Your task to perform on an android device: What's the weather today? Image 0: 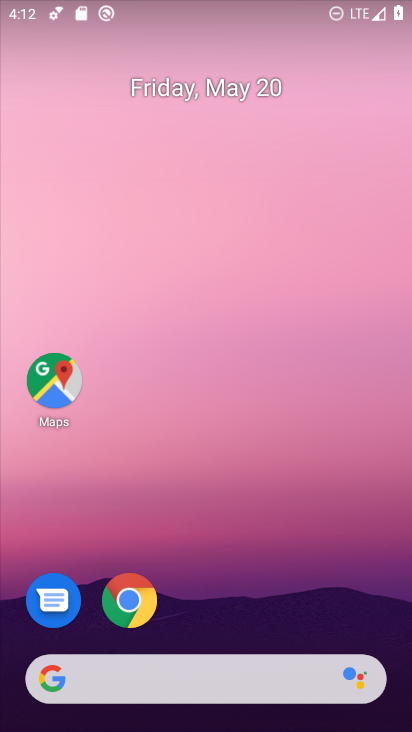
Step 0: click (209, 671)
Your task to perform on an android device: What's the weather today? Image 1: 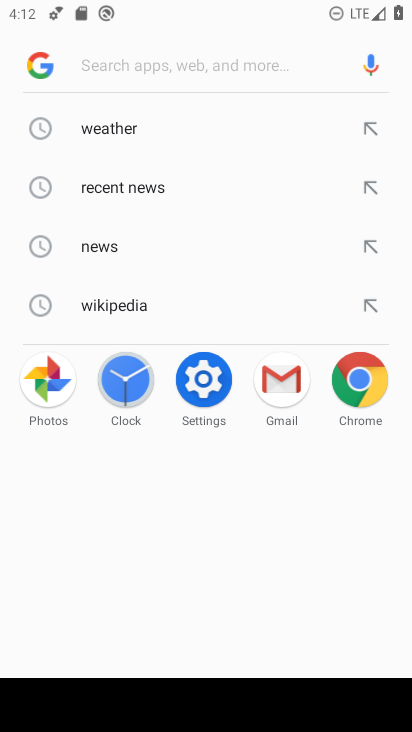
Step 1: click (116, 128)
Your task to perform on an android device: What's the weather today? Image 2: 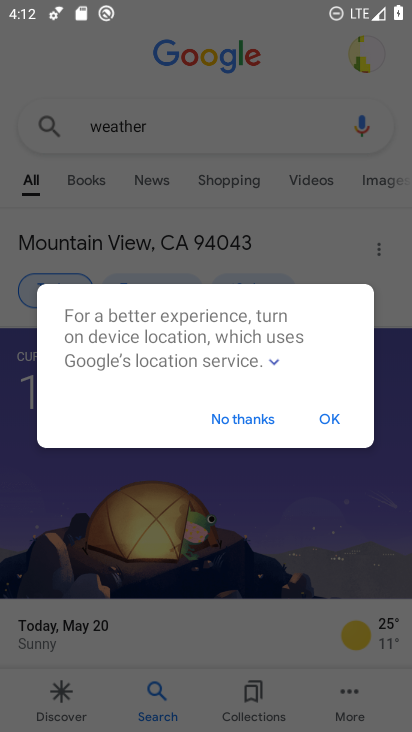
Step 2: click (247, 423)
Your task to perform on an android device: What's the weather today? Image 3: 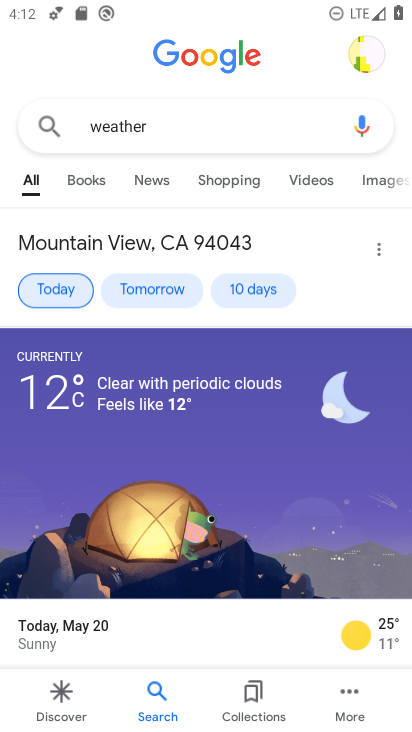
Step 3: task complete